Your task to perform on an android device: change your default location settings in chrome Image 0: 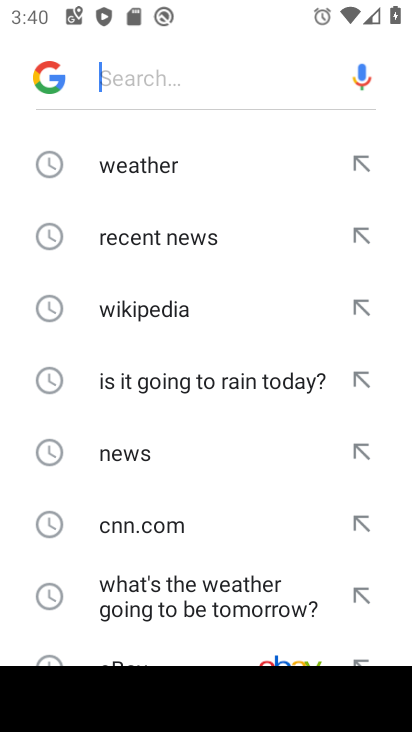
Step 0: press home button
Your task to perform on an android device: change your default location settings in chrome Image 1: 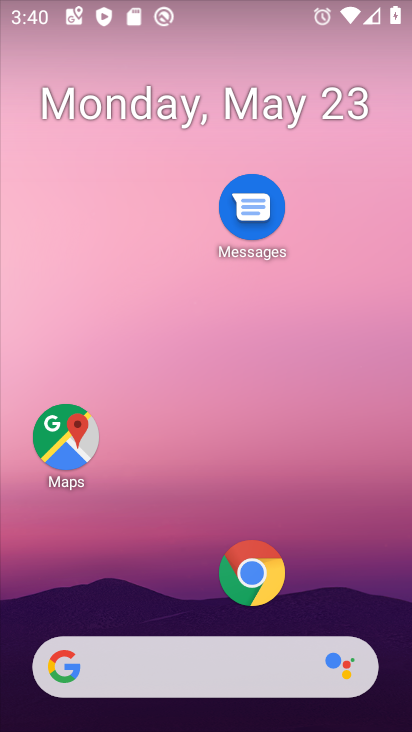
Step 1: drag from (306, 675) to (304, 76)
Your task to perform on an android device: change your default location settings in chrome Image 2: 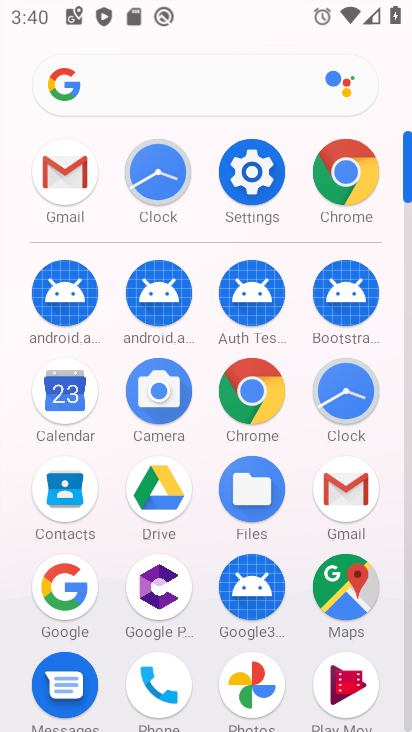
Step 2: click (258, 378)
Your task to perform on an android device: change your default location settings in chrome Image 3: 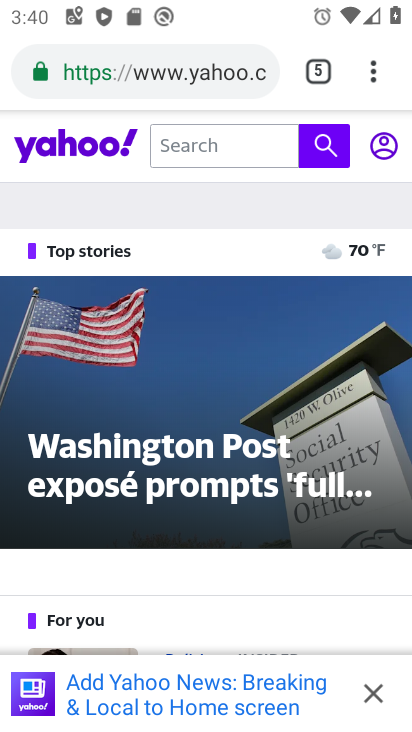
Step 3: drag from (369, 70) to (183, 564)
Your task to perform on an android device: change your default location settings in chrome Image 4: 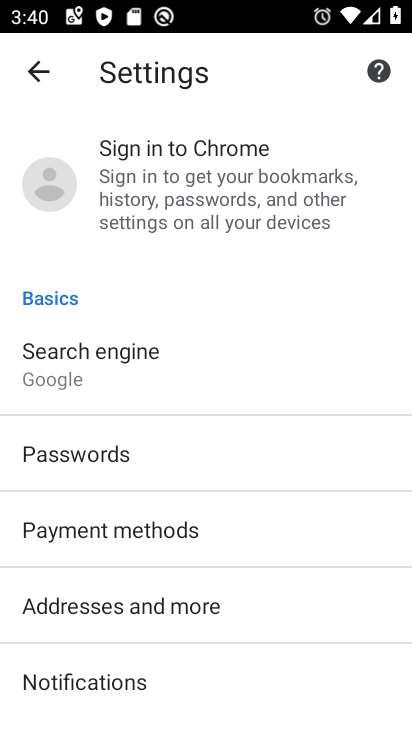
Step 4: drag from (223, 632) to (265, 69)
Your task to perform on an android device: change your default location settings in chrome Image 5: 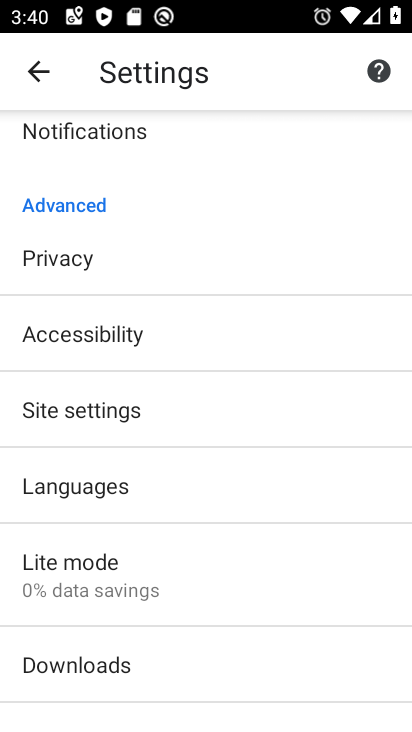
Step 5: click (188, 403)
Your task to perform on an android device: change your default location settings in chrome Image 6: 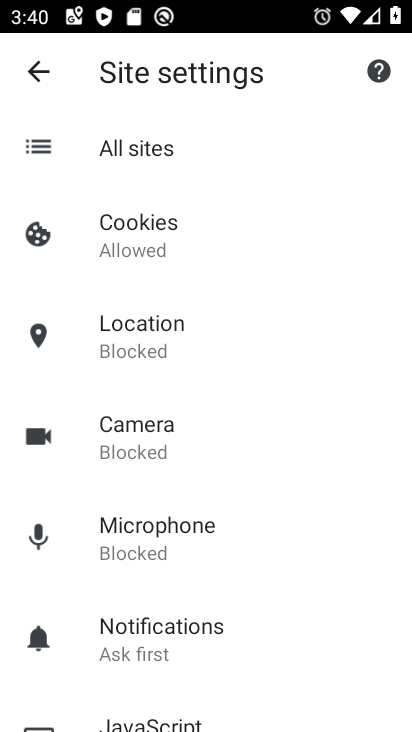
Step 6: click (193, 339)
Your task to perform on an android device: change your default location settings in chrome Image 7: 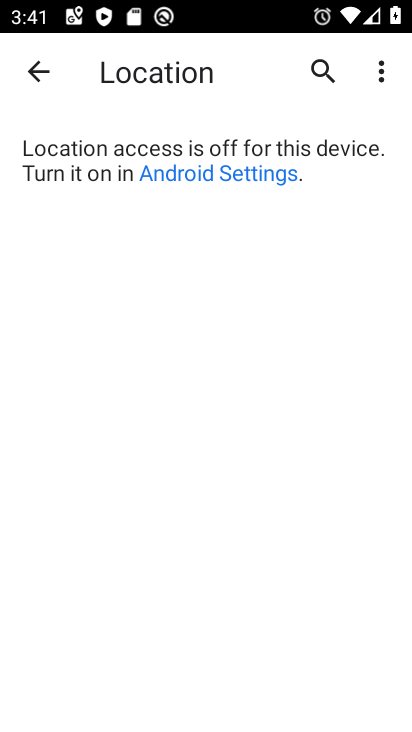
Step 7: task complete